Your task to perform on an android device: check data usage Image 0: 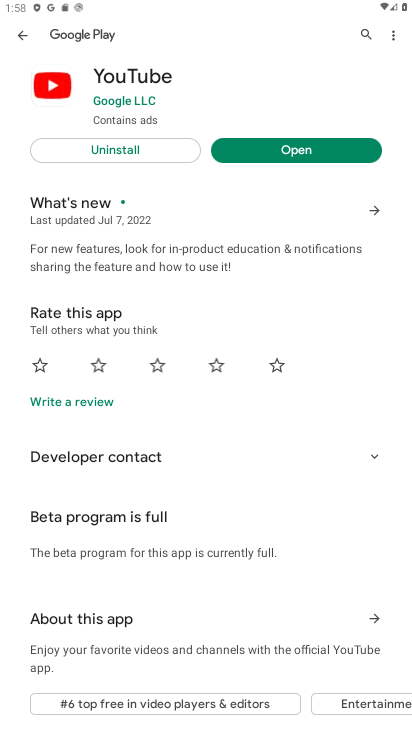
Step 0: press home button
Your task to perform on an android device: check data usage Image 1: 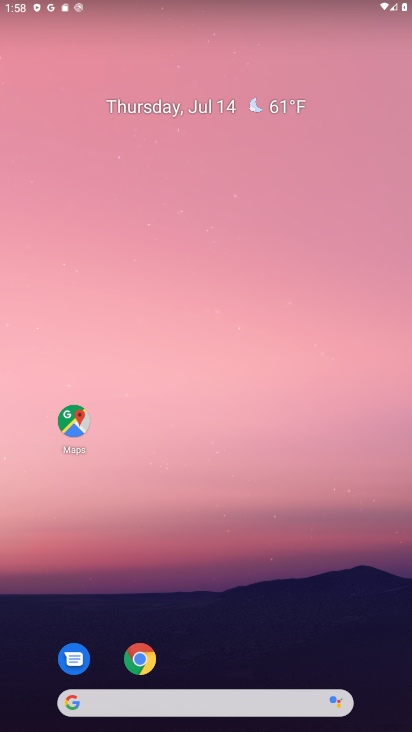
Step 1: drag from (227, 668) to (151, 98)
Your task to perform on an android device: check data usage Image 2: 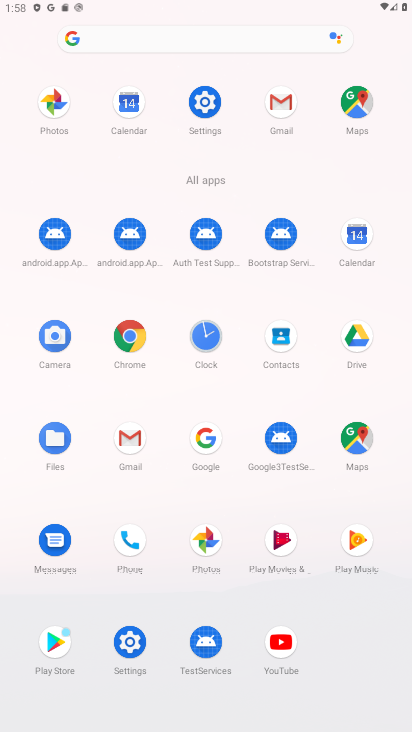
Step 2: click (188, 104)
Your task to perform on an android device: check data usage Image 3: 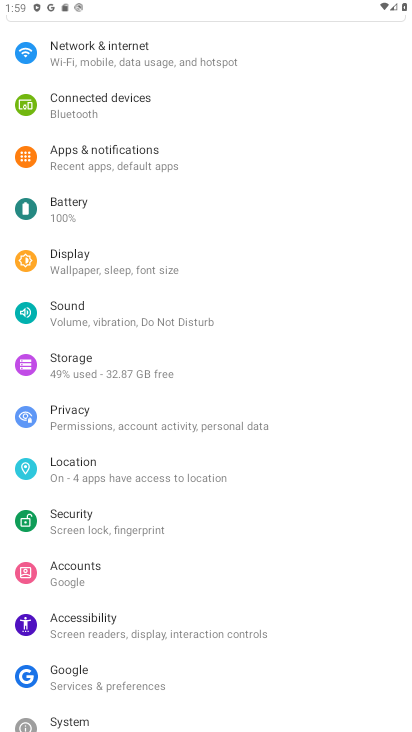
Step 3: click (93, 52)
Your task to perform on an android device: check data usage Image 4: 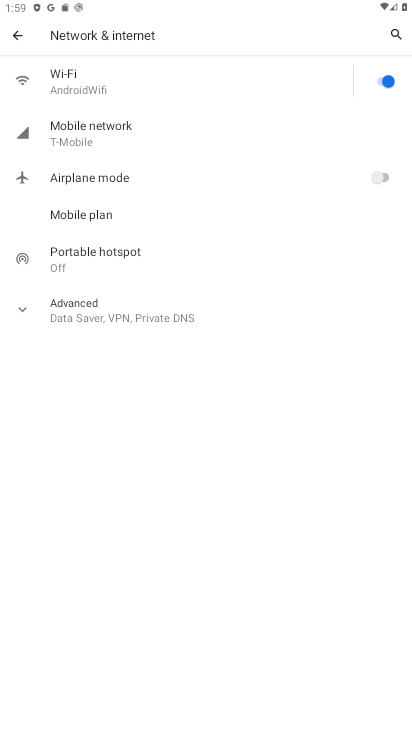
Step 4: click (101, 135)
Your task to perform on an android device: check data usage Image 5: 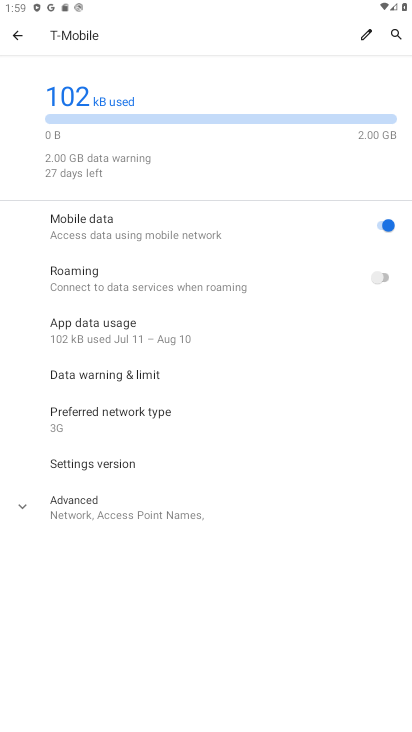
Step 5: task complete